Your task to perform on an android device: toggle sleep mode Image 0: 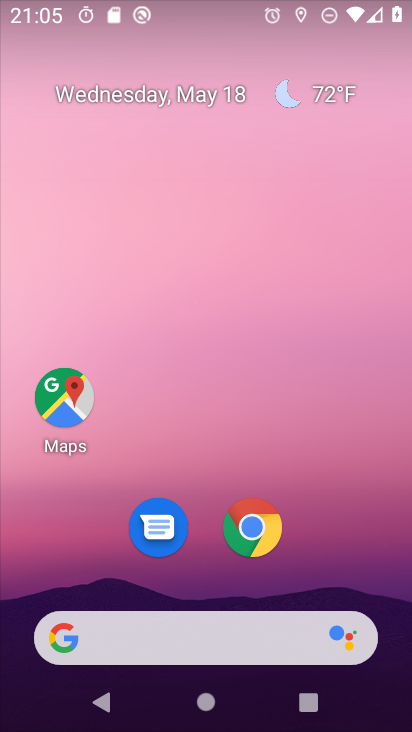
Step 0: drag from (389, 650) to (358, 192)
Your task to perform on an android device: toggle sleep mode Image 1: 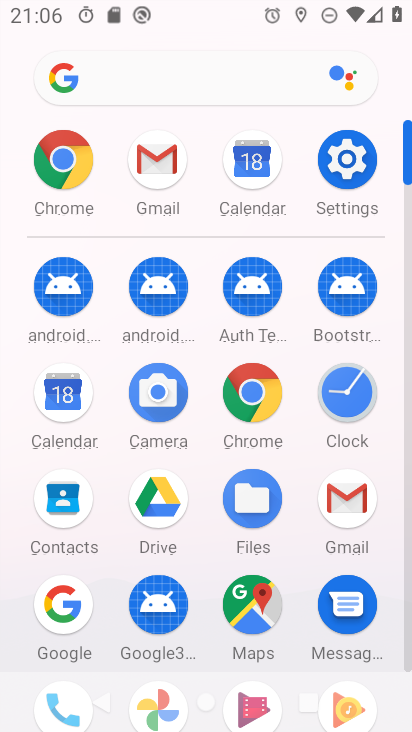
Step 1: click (346, 159)
Your task to perform on an android device: toggle sleep mode Image 2: 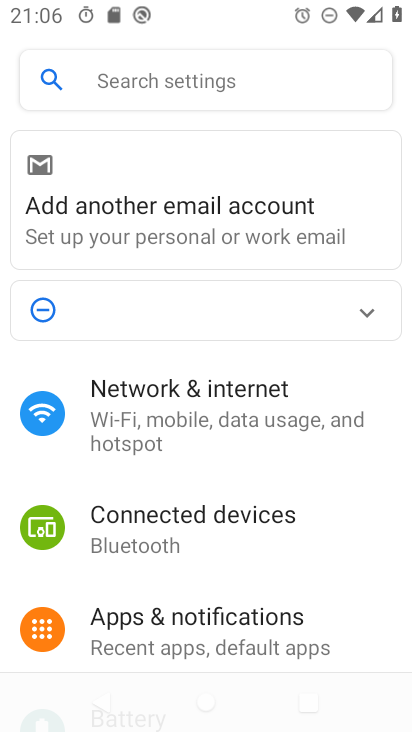
Step 2: drag from (311, 612) to (302, 380)
Your task to perform on an android device: toggle sleep mode Image 3: 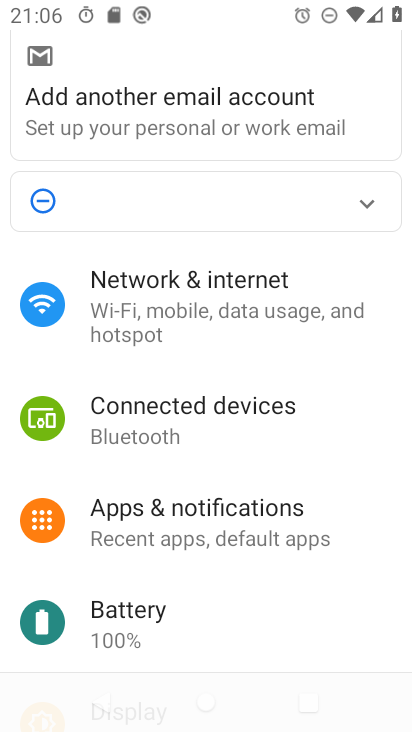
Step 3: drag from (262, 625) to (255, 352)
Your task to perform on an android device: toggle sleep mode Image 4: 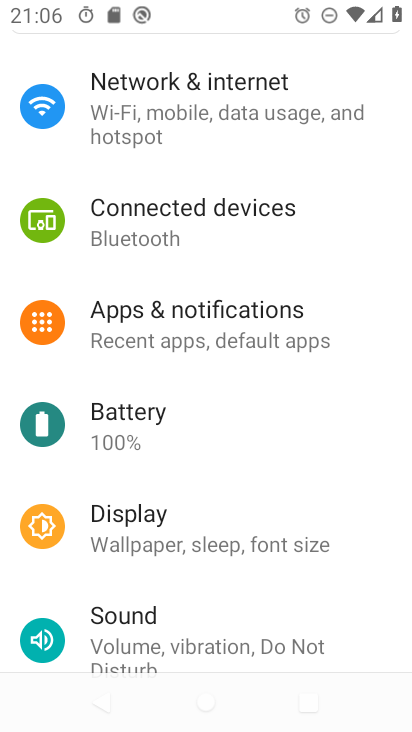
Step 4: drag from (346, 636) to (338, 208)
Your task to perform on an android device: toggle sleep mode Image 5: 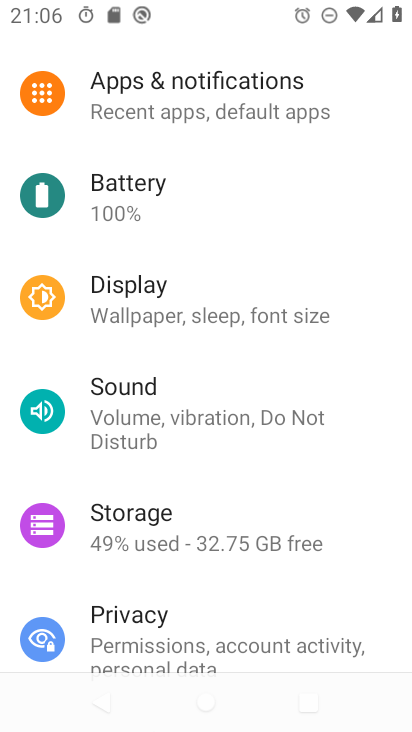
Step 5: drag from (366, 634) to (370, 314)
Your task to perform on an android device: toggle sleep mode Image 6: 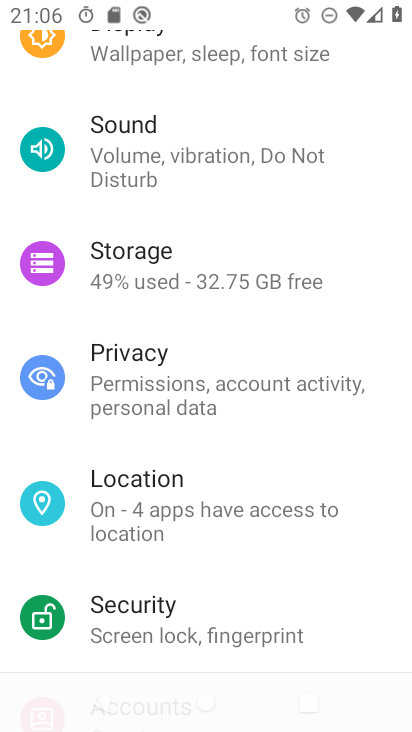
Step 6: click (154, 52)
Your task to perform on an android device: toggle sleep mode Image 7: 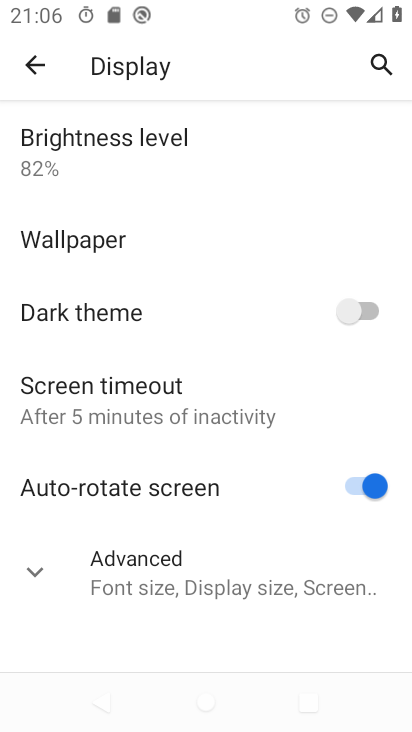
Step 7: click (142, 391)
Your task to perform on an android device: toggle sleep mode Image 8: 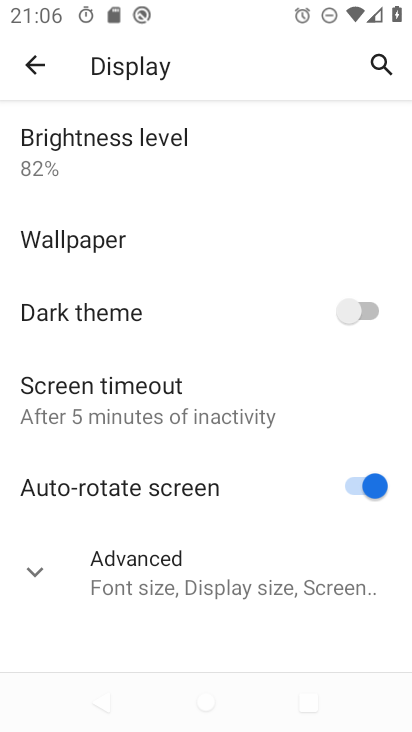
Step 8: click (71, 397)
Your task to perform on an android device: toggle sleep mode Image 9: 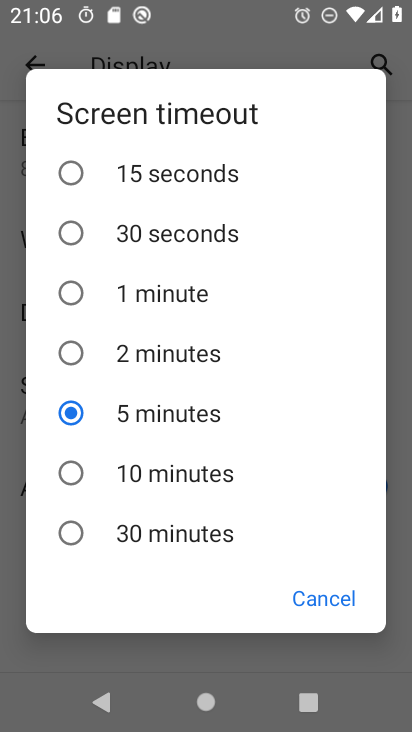
Step 9: click (66, 469)
Your task to perform on an android device: toggle sleep mode Image 10: 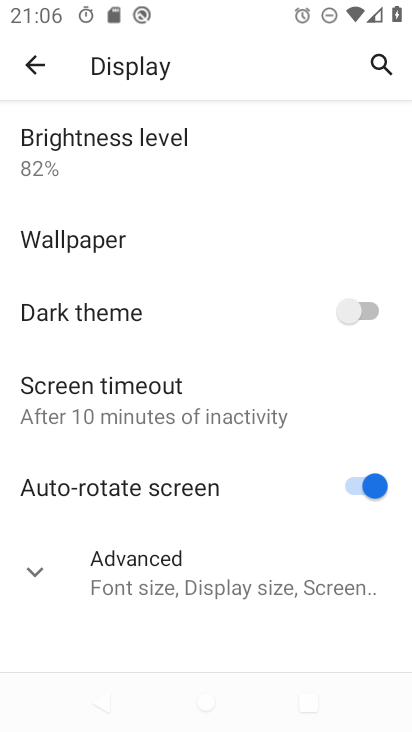
Step 10: task complete